Your task to perform on an android device: delete the emails in spam in the gmail app Image 0: 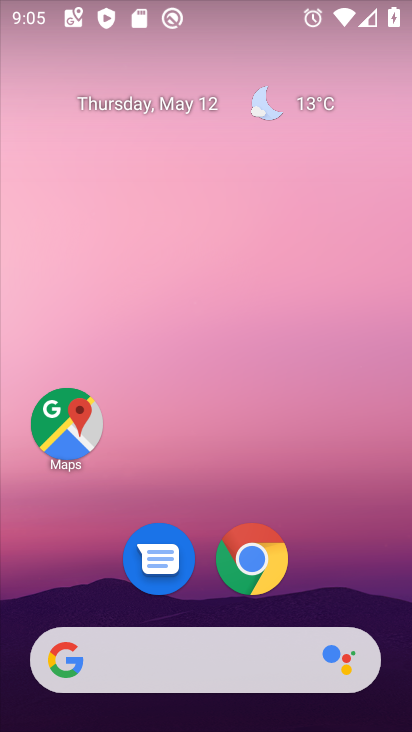
Step 0: drag from (69, 621) to (168, 206)
Your task to perform on an android device: delete the emails in spam in the gmail app Image 1: 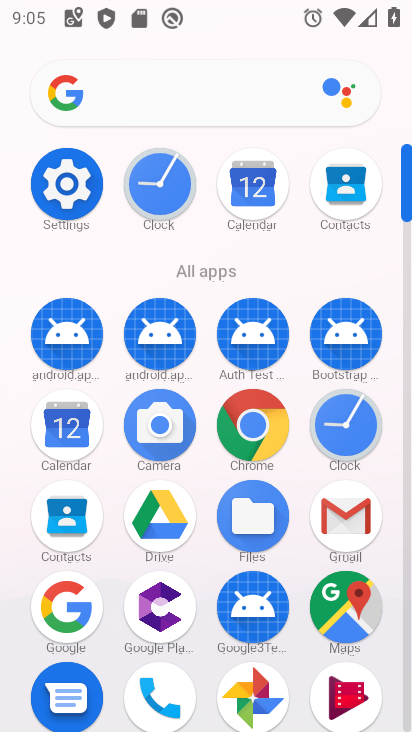
Step 1: click (363, 531)
Your task to perform on an android device: delete the emails in spam in the gmail app Image 2: 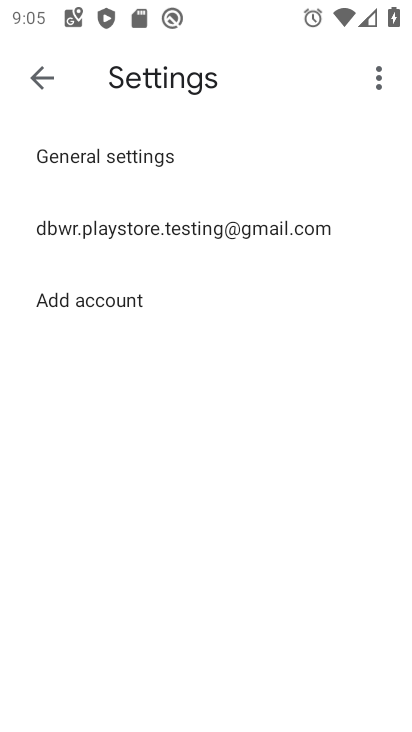
Step 2: click (41, 82)
Your task to perform on an android device: delete the emails in spam in the gmail app Image 3: 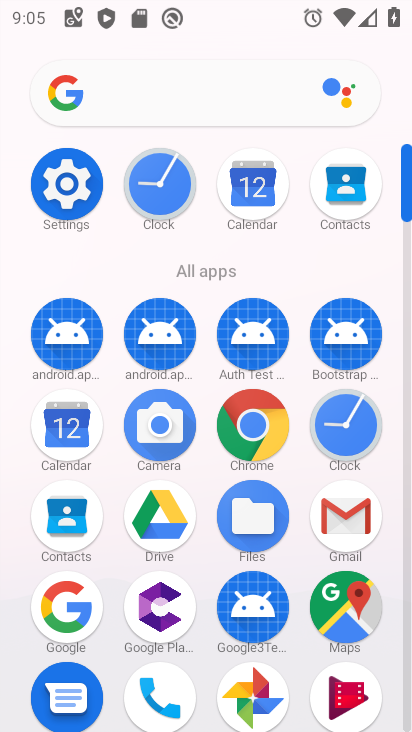
Step 3: click (356, 492)
Your task to perform on an android device: delete the emails in spam in the gmail app Image 4: 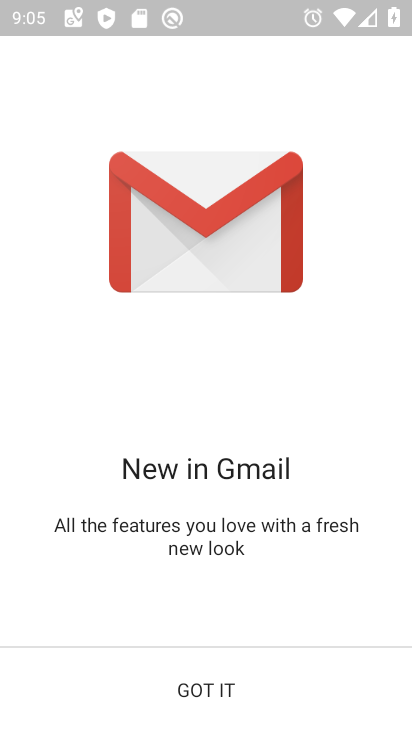
Step 4: click (264, 682)
Your task to perform on an android device: delete the emails in spam in the gmail app Image 5: 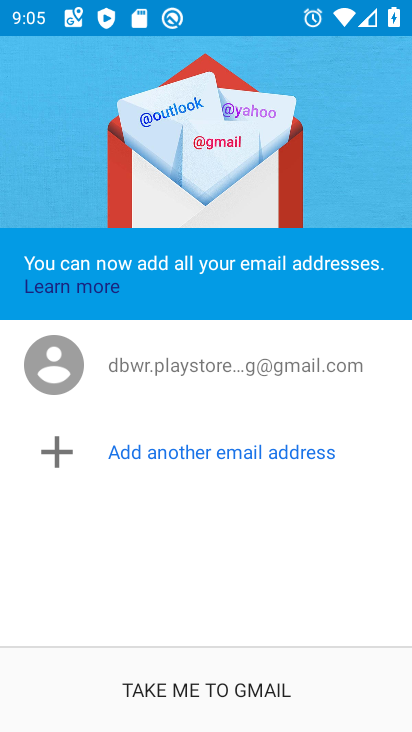
Step 5: click (252, 696)
Your task to perform on an android device: delete the emails in spam in the gmail app Image 6: 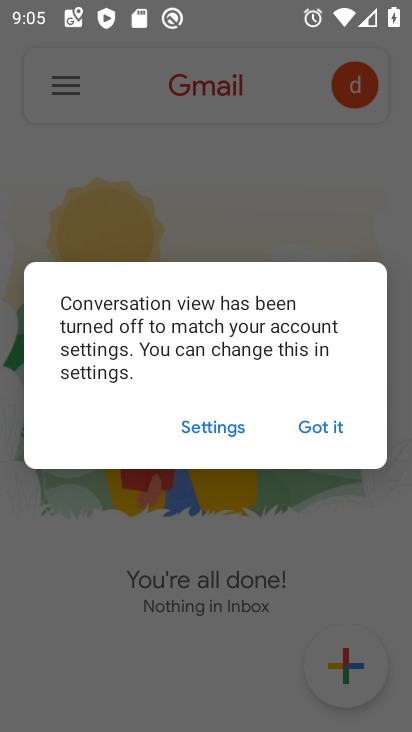
Step 6: click (347, 440)
Your task to perform on an android device: delete the emails in spam in the gmail app Image 7: 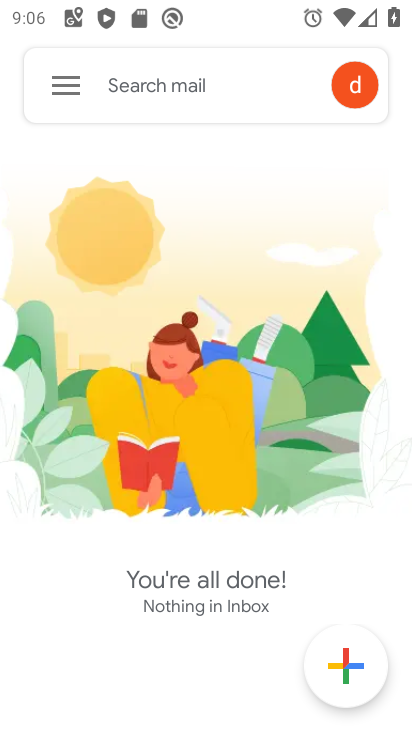
Step 7: click (87, 107)
Your task to perform on an android device: delete the emails in spam in the gmail app Image 8: 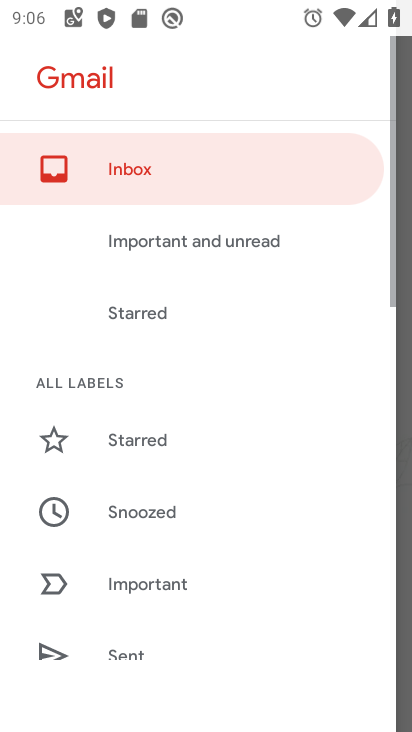
Step 8: drag from (165, 607) to (227, 211)
Your task to perform on an android device: delete the emails in spam in the gmail app Image 9: 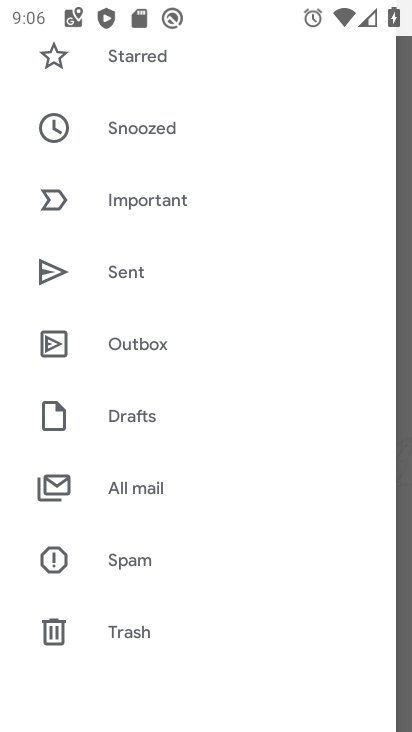
Step 9: click (139, 573)
Your task to perform on an android device: delete the emails in spam in the gmail app Image 10: 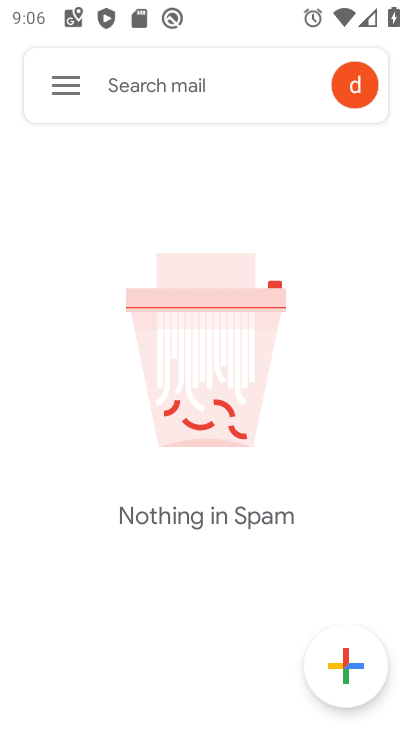
Step 10: task complete